Your task to perform on an android device: Set the phone to "Do not disturb". Image 0: 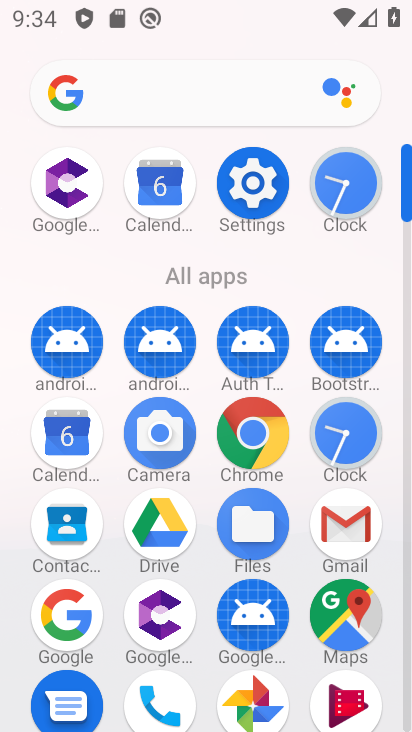
Step 0: click (264, 201)
Your task to perform on an android device: Set the phone to "Do not disturb". Image 1: 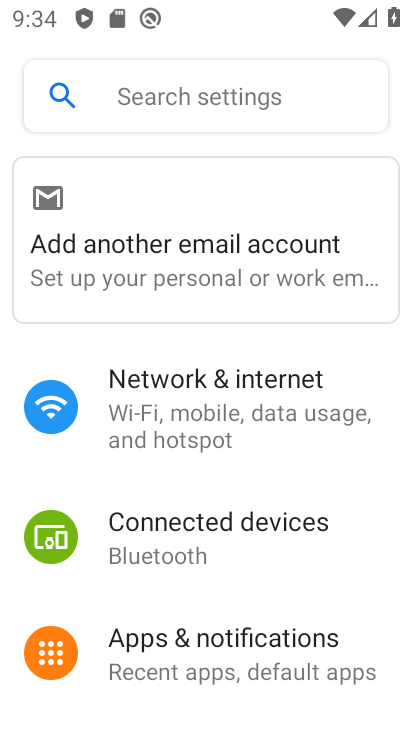
Step 1: drag from (365, 569) to (385, 402)
Your task to perform on an android device: Set the phone to "Do not disturb". Image 2: 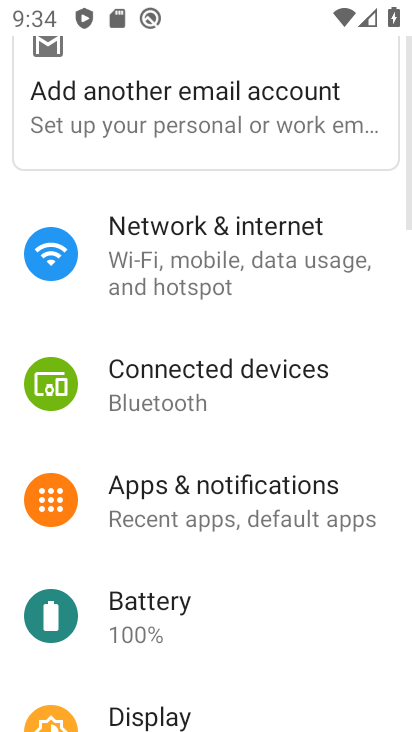
Step 2: drag from (354, 624) to (357, 461)
Your task to perform on an android device: Set the phone to "Do not disturb". Image 3: 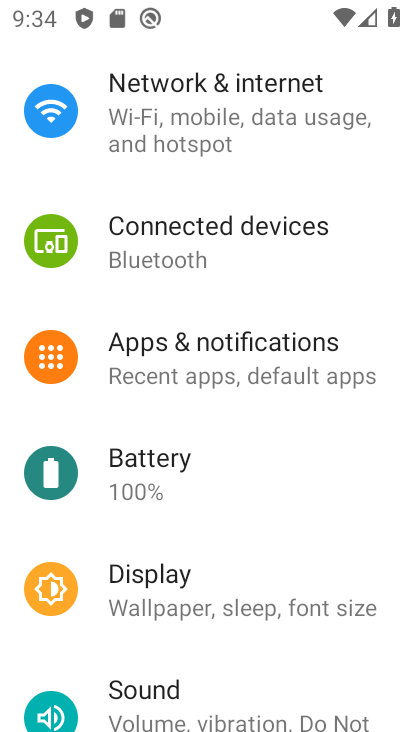
Step 3: drag from (358, 529) to (367, 369)
Your task to perform on an android device: Set the phone to "Do not disturb". Image 4: 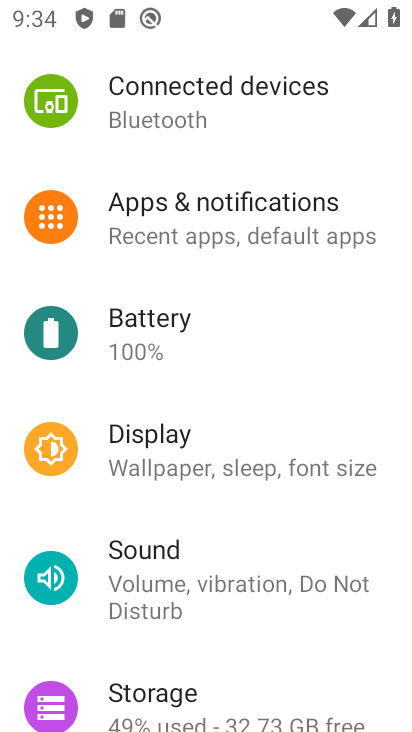
Step 4: drag from (357, 639) to (360, 427)
Your task to perform on an android device: Set the phone to "Do not disturb". Image 5: 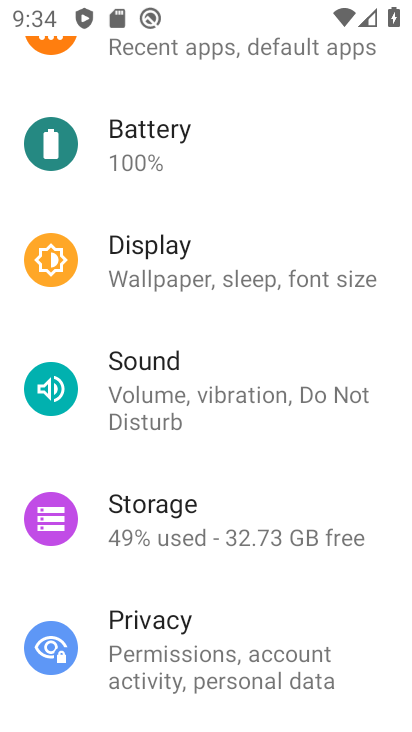
Step 5: click (242, 402)
Your task to perform on an android device: Set the phone to "Do not disturb". Image 6: 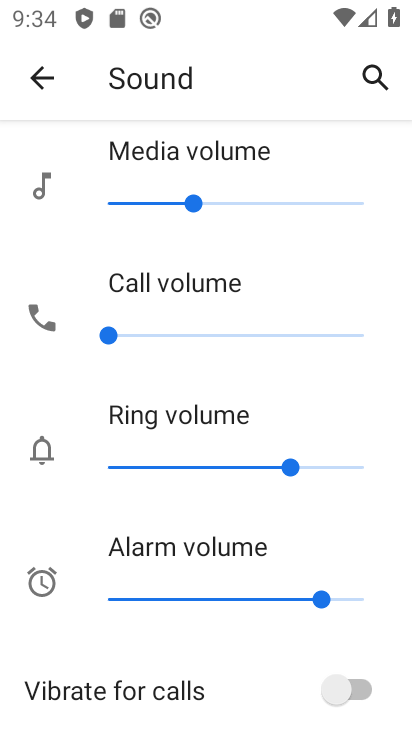
Step 6: drag from (370, 536) to (376, 433)
Your task to perform on an android device: Set the phone to "Do not disturb". Image 7: 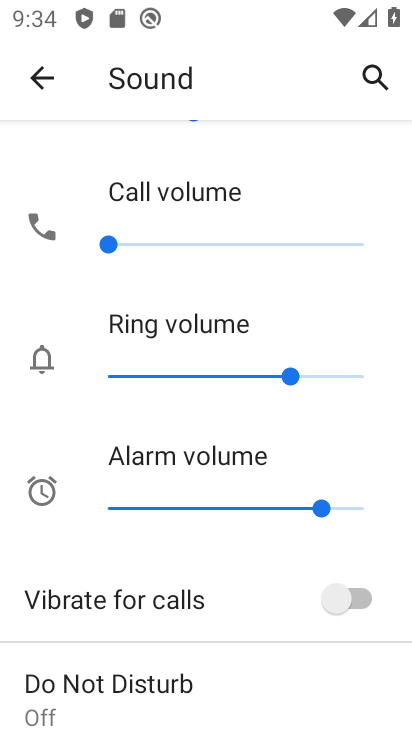
Step 7: drag from (378, 543) to (383, 417)
Your task to perform on an android device: Set the phone to "Do not disturb". Image 8: 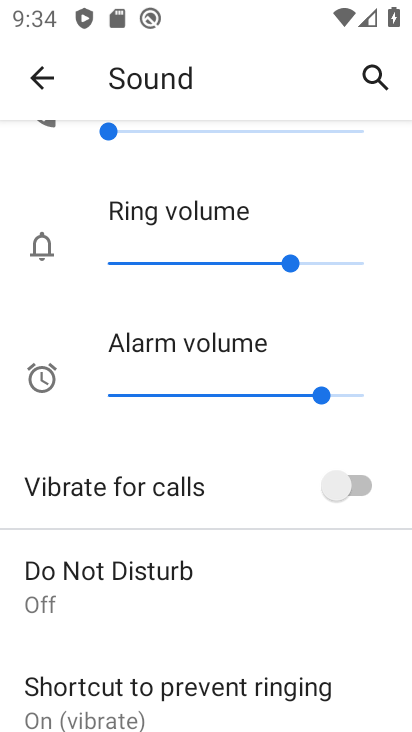
Step 8: drag from (362, 601) to (369, 483)
Your task to perform on an android device: Set the phone to "Do not disturb". Image 9: 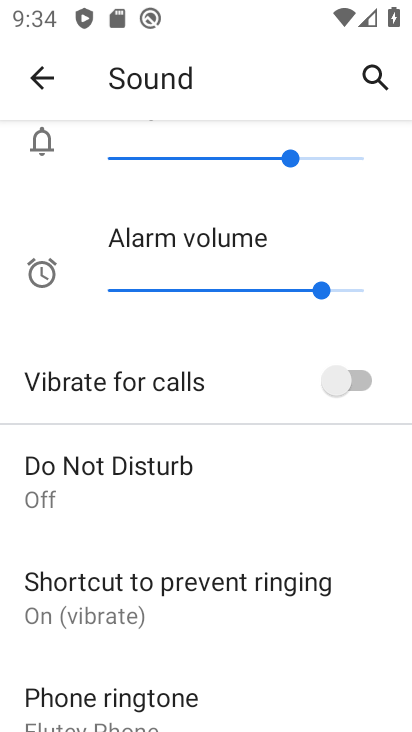
Step 9: click (135, 494)
Your task to perform on an android device: Set the phone to "Do not disturb". Image 10: 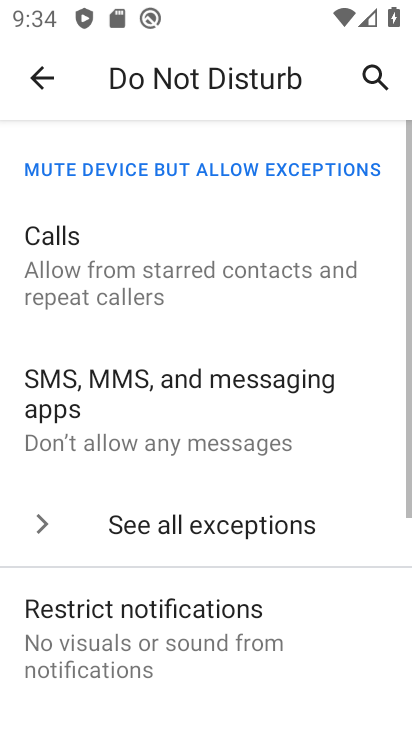
Step 10: drag from (356, 568) to (353, 472)
Your task to perform on an android device: Set the phone to "Do not disturb". Image 11: 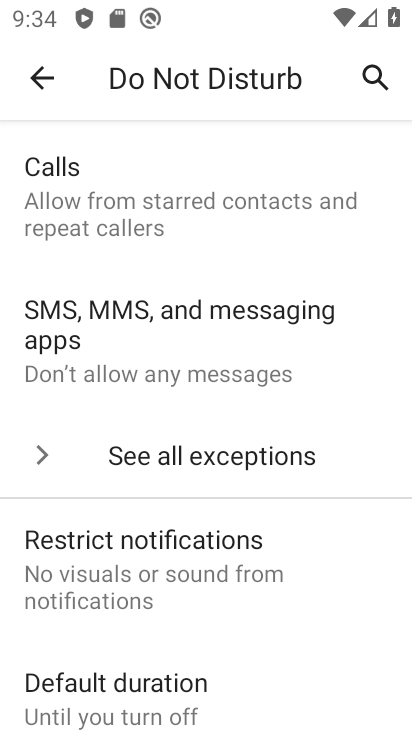
Step 11: drag from (337, 603) to (343, 495)
Your task to perform on an android device: Set the phone to "Do not disturb". Image 12: 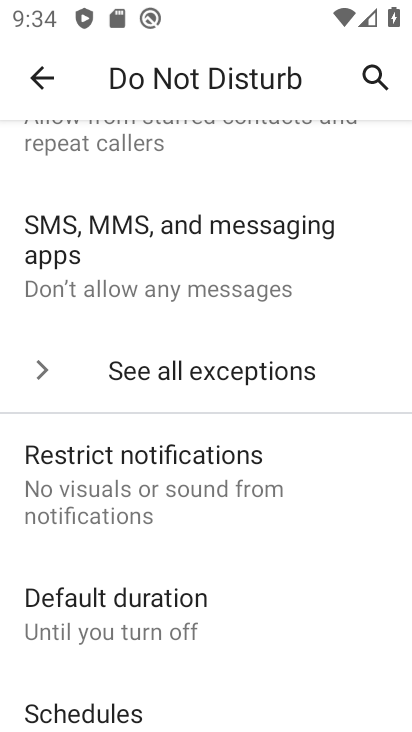
Step 12: drag from (331, 603) to (327, 512)
Your task to perform on an android device: Set the phone to "Do not disturb". Image 13: 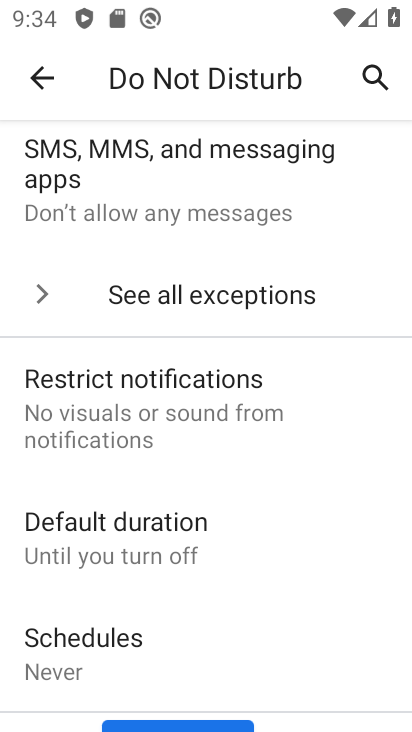
Step 13: drag from (327, 599) to (329, 484)
Your task to perform on an android device: Set the phone to "Do not disturb". Image 14: 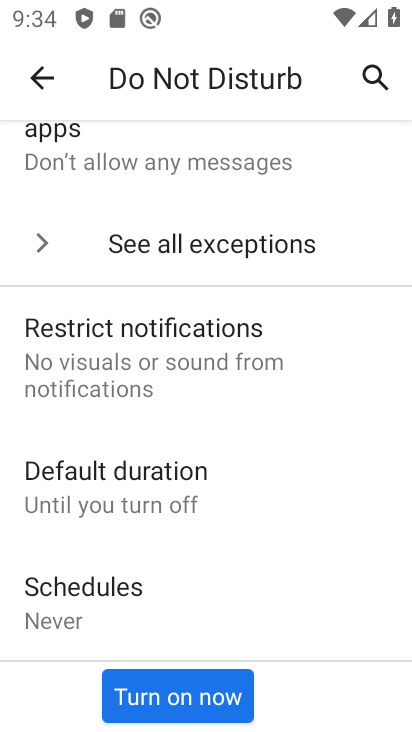
Step 14: click (252, 702)
Your task to perform on an android device: Set the phone to "Do not disturb". Image 15: 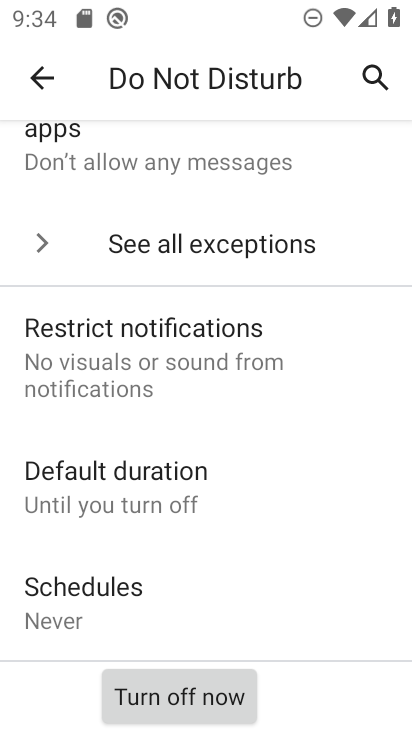
Step 15: task complete